Your task to perform on an android device: change notifications settings Image 0: 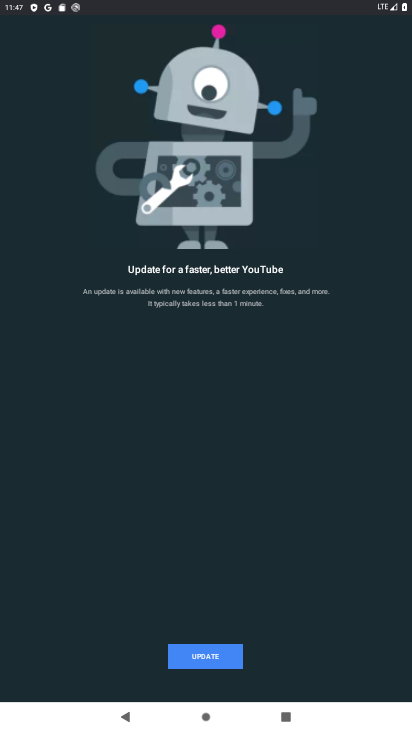
Step 0: press home button
Your task to perform on an android device: change notifications settings Image 1: 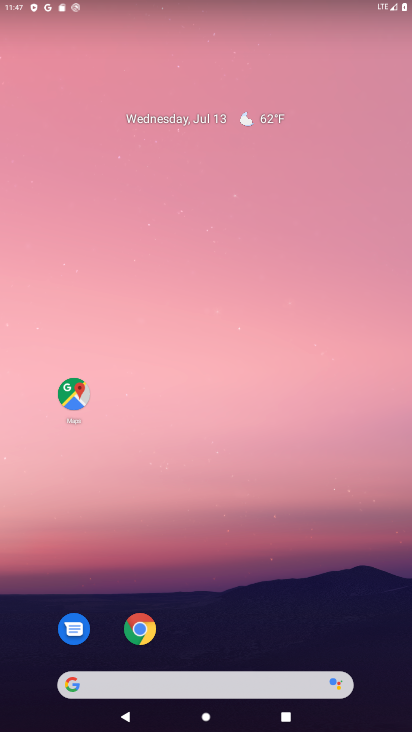
Step 1: drag from (201, 637) to (215, 0)
Your task to perform on an android device: change notifications settings Image 2: 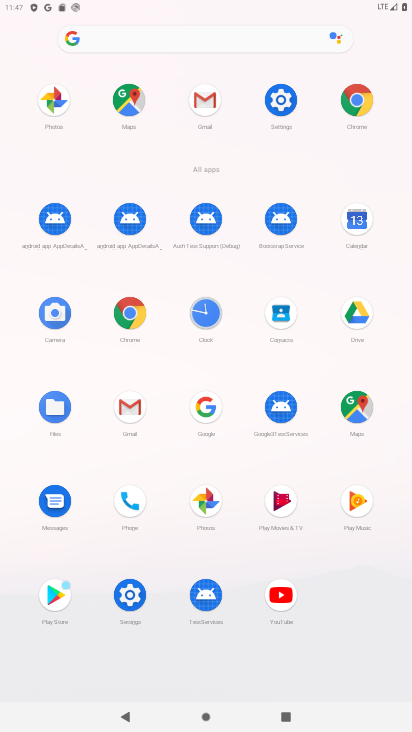
Step 2: click (283, 115)
Your task to perform on an android device: change notifications settings Image 3: 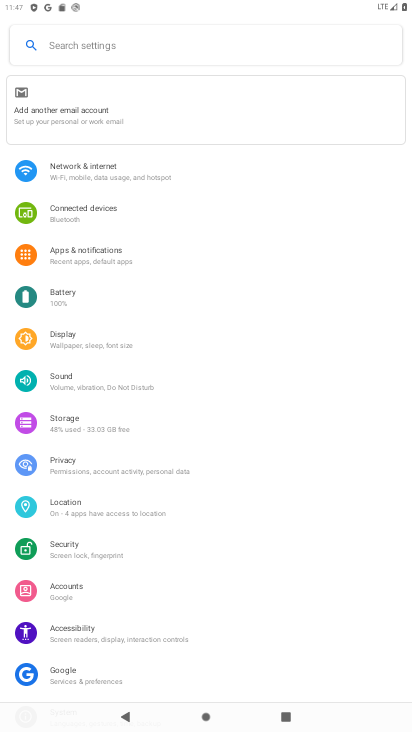
Step 3: click (72, 263)
Your task to perform on an android device: change notifications settings Image 4: 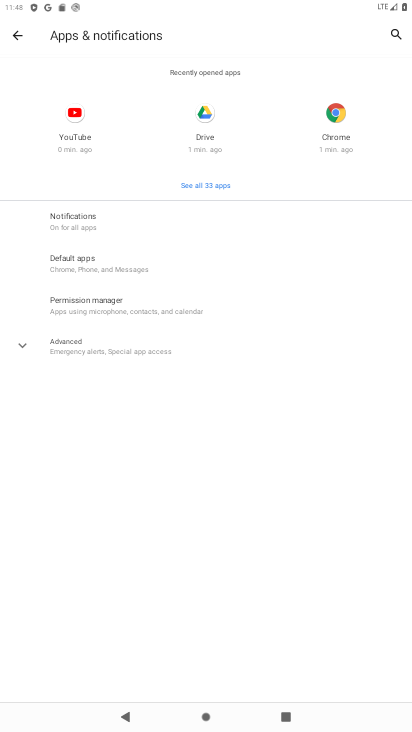
Step 4: click (91, 208)
Your task to perform on an android device: change notifications settings Image 5: 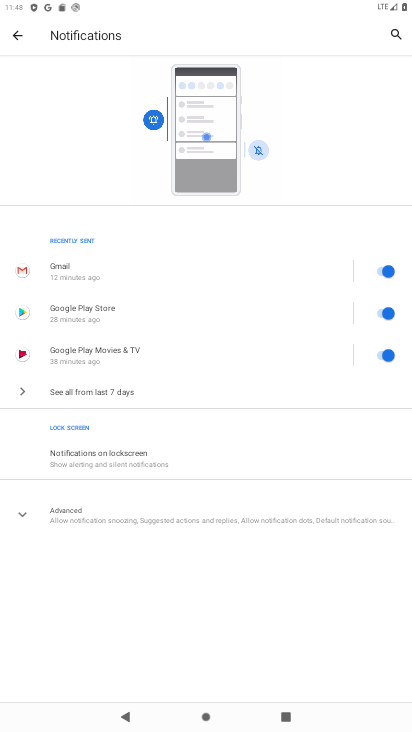
Step 5: click (107, 506)
Your task to perform on an android device: change notifications settings Image 6: 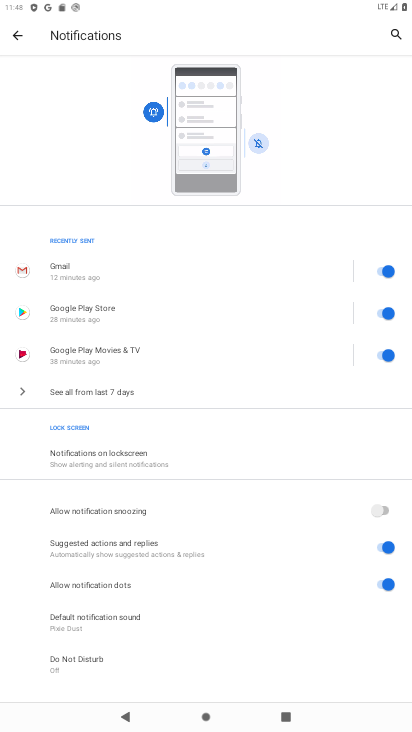
Step 6: click (386, 548)
Your task to perform on an android device: change notifications settings Image 7: 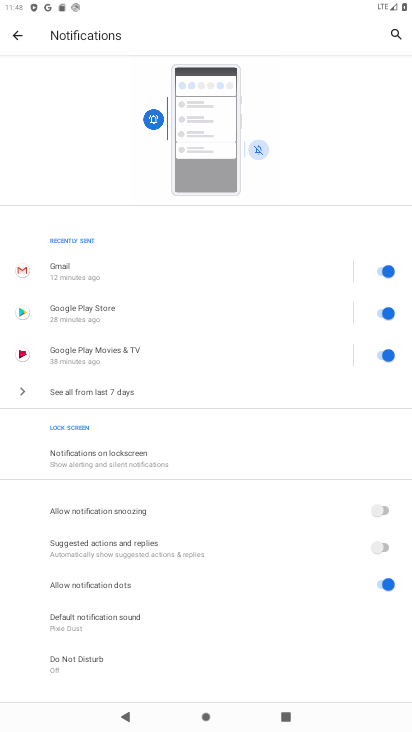
Step 7: click (385, 508)
Your task to perform on an android device: change notifications settings Image 8: 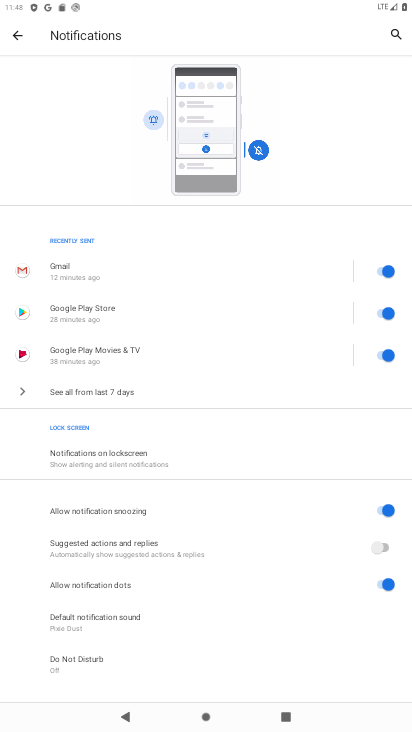
Step 8: task complete